Your task to perform on an android device: Open privacy settings Image 0: 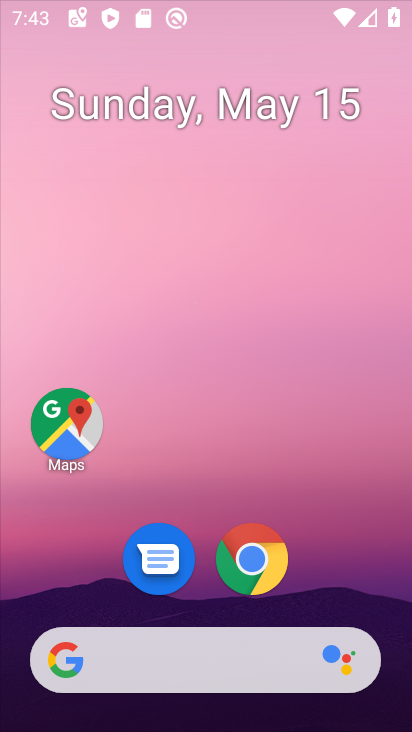
Step 0: drag from (352, 596) to (346, 181)
Your task to perform on an android device: Open privacy settings Image 1: 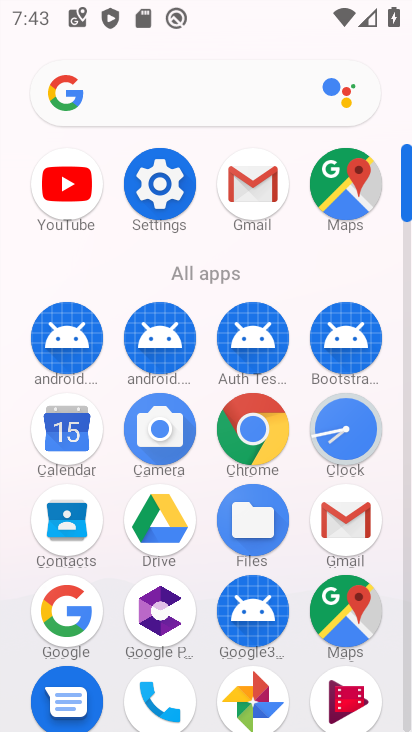
Step 1: click (248, 208)
Your task to perform on an android device: Open privacy settings Image 2: 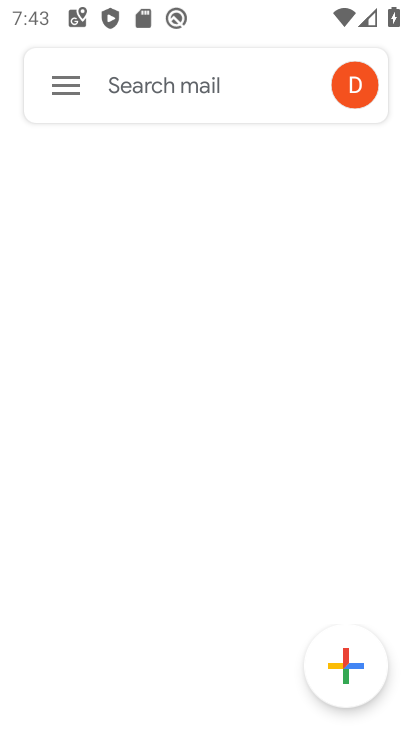
Step 2: click (64, 101)
Your task to perform on an android device: Open privacy settings Image 3: 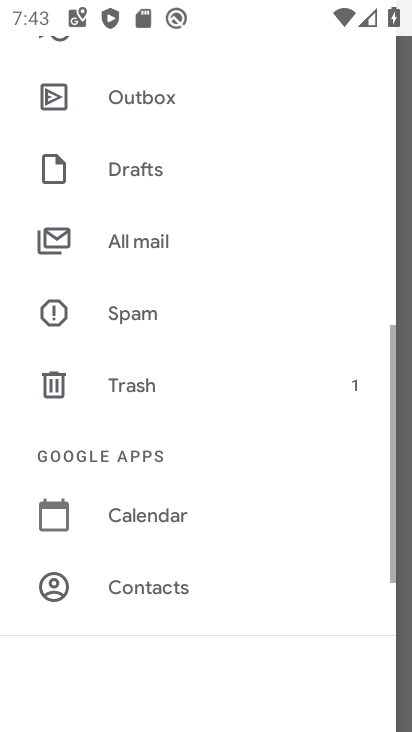
Step 3: drag from (158, 638) to (230, 133)
Your task to perform on an android device: Open privacy settings Image 4: 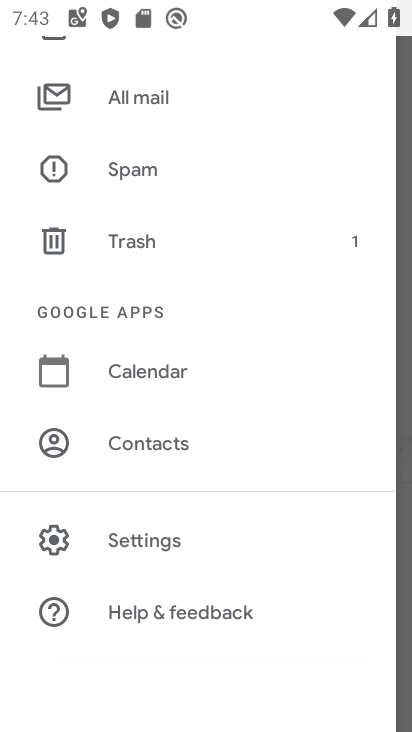
Step 4: click (182, 528)
Your task to perform on an android device: Open privacy settings Image 5: 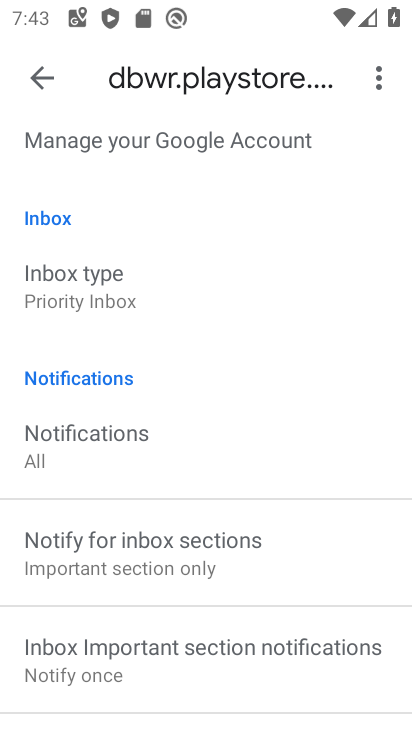
Step 5: press home button
Your task to perform on an android device: Open privacy settings Image 6: 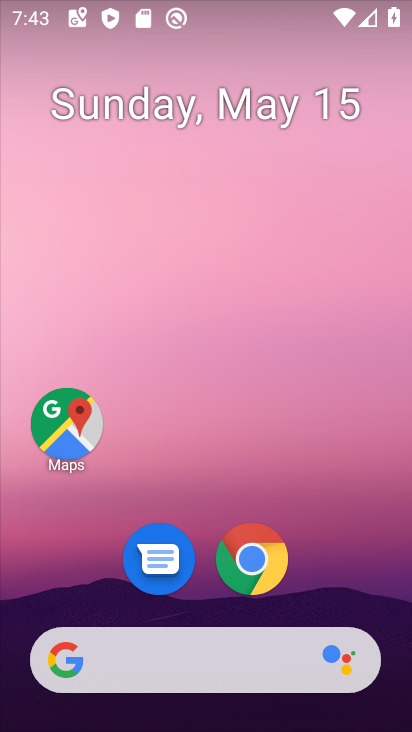
Step 6: drag from (301, 434) to (259, 186)
Your task to perform on an android device: Open privacy settings Image 7: 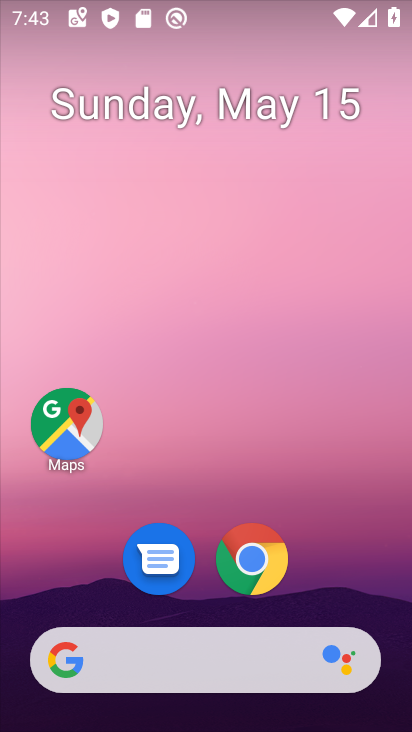
Step 7: drag from (284, 458) to (301, 141)
Your task to perform on an android device: Open privacy settings Image 8: 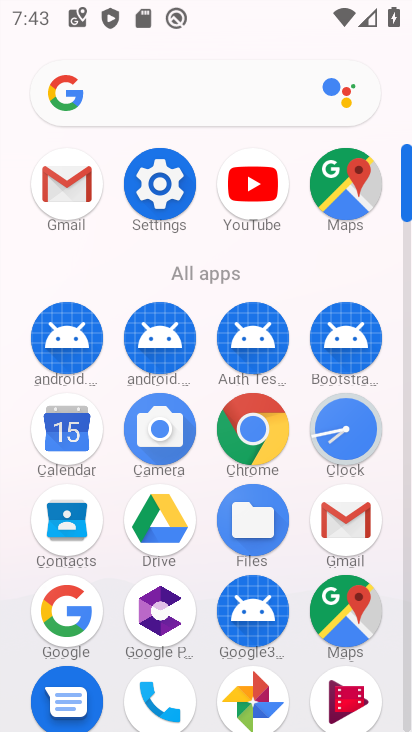
Step 8: click (180, 186)
Your task to perform on an android device: Open privacy settings Image 9: 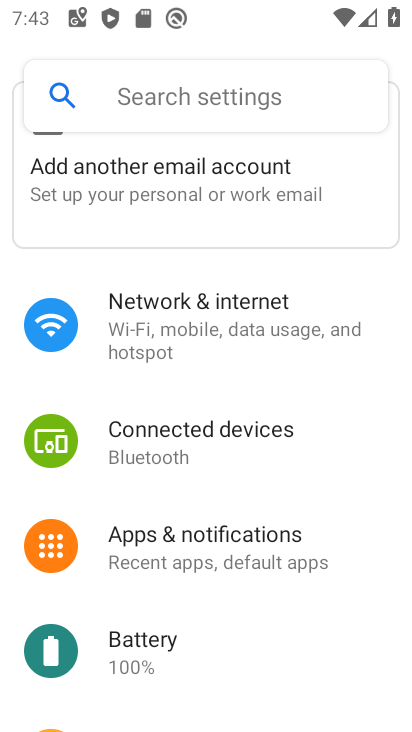
Step 9: drag from (232, 618) to (266, 144)
Your task to perform on an android device: Open privacy settings Image 10: 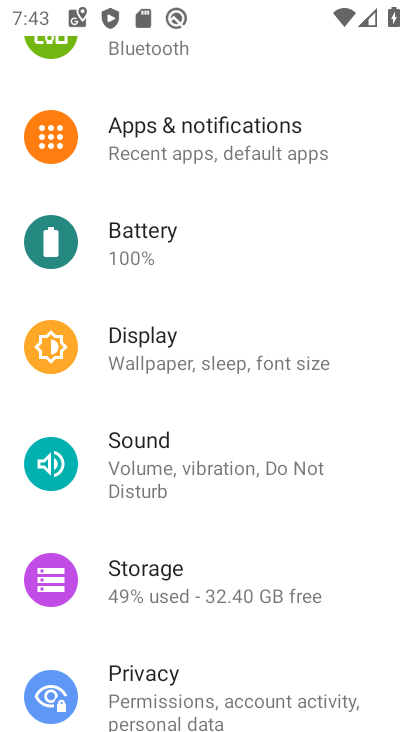
Step 10: drag from (212, 655) to (246, 482)
Your task to perform on an android device: Open privacy settings Image 11: 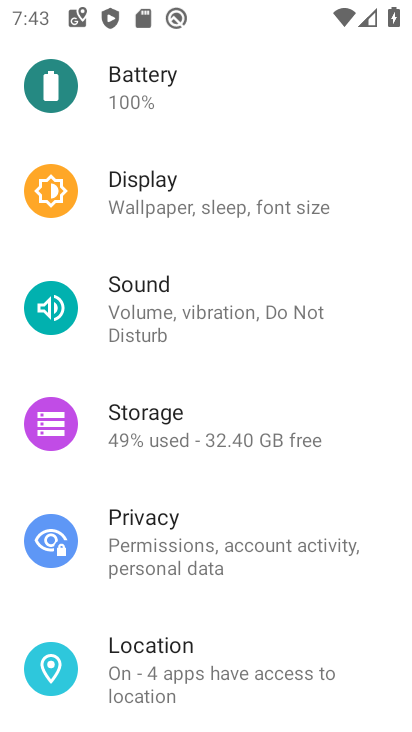
Step 11: click (206, 537)
Your task to perform on an android device: Open privacy settings Image 12: 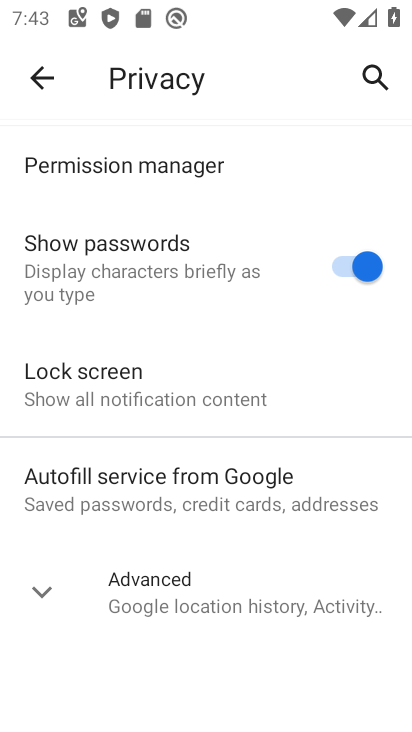
Step 12: task complete